Your task to perform on an android device: remove spam from my inbox in the gmail app Image 0: 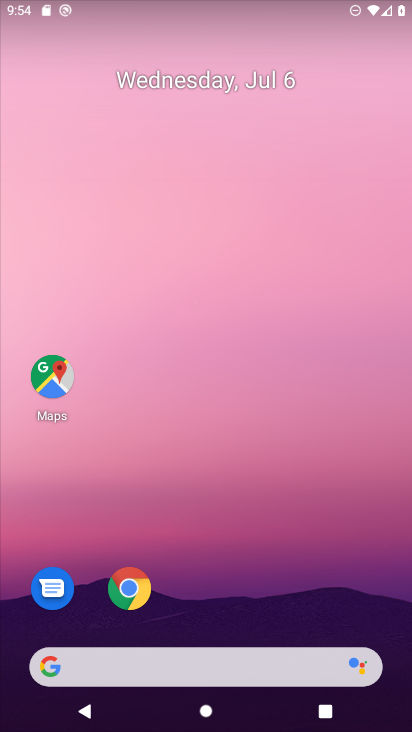
Step 0: drag from (225, 608) to (295, 66)
Your task to perform on an android device: remove spam from my inbox in the gmail app Image 1: 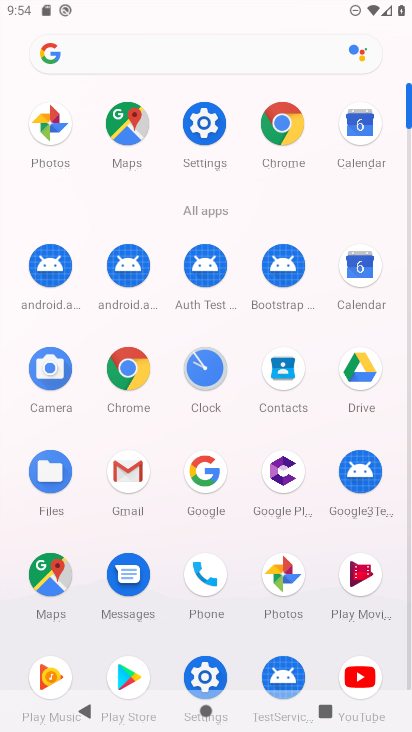
Step 1: click (135, 475)
Your task to perform on an android device: remove spam from my inbox in the gmail app Image 2: 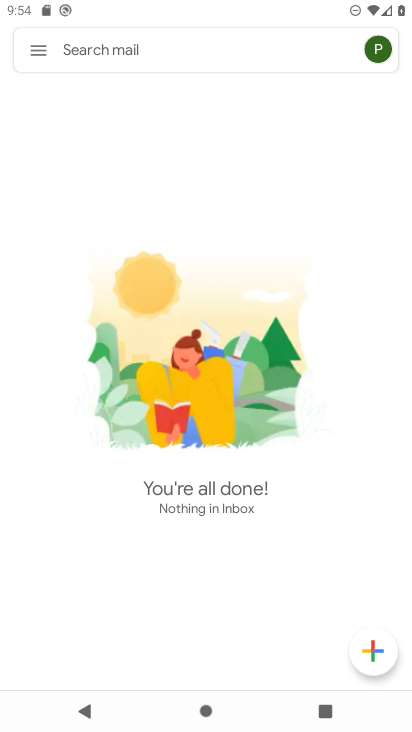
Step 2: click (41, 39)
Your task to perform on an android device: remove spam from my inbox in the gmail app Image 3: 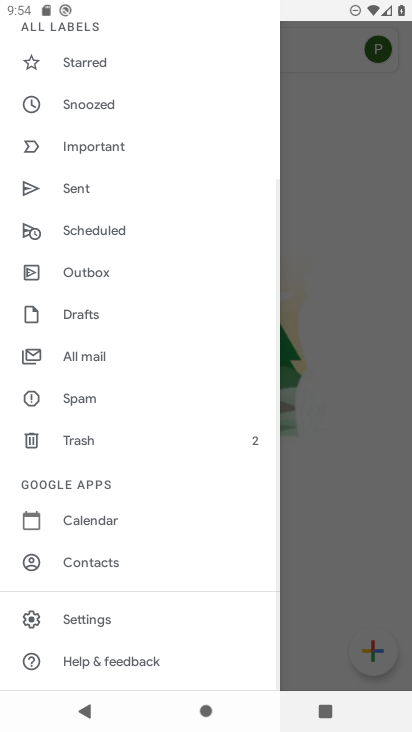
Step 3: drag from (151, 124) to (127, 586)
Your task to perform on an android device: remove spam from my inbox in the gmail app Image 4: 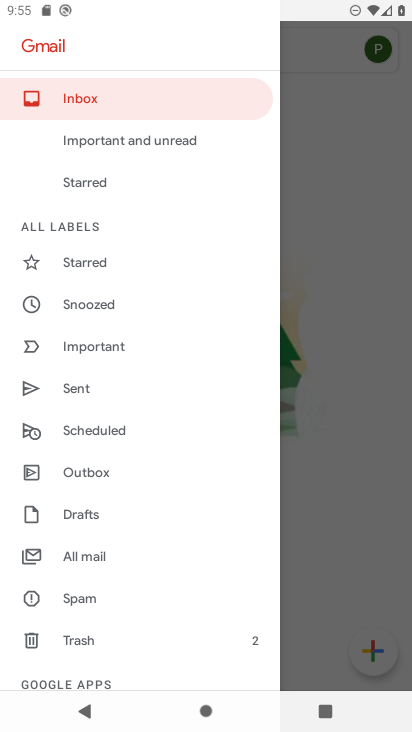
Step 4: click (76, 600)
Your task to perform on an android device: remove spam from my inbox in the gmail app Image 5: 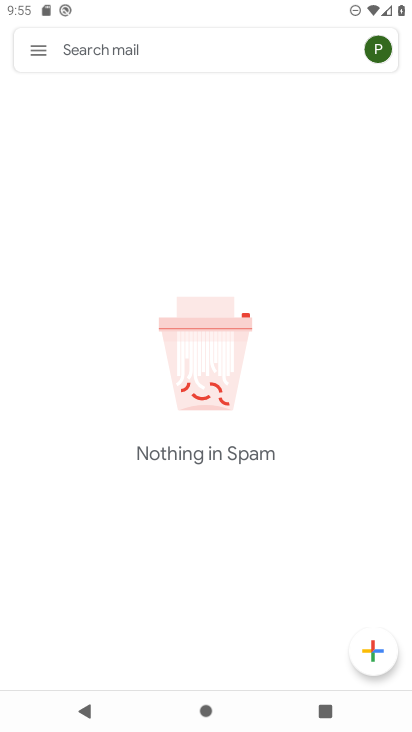
Step 5: task complete